Your task to perform on an android device: Search for seafood restaurants on Google Maps Image 0: 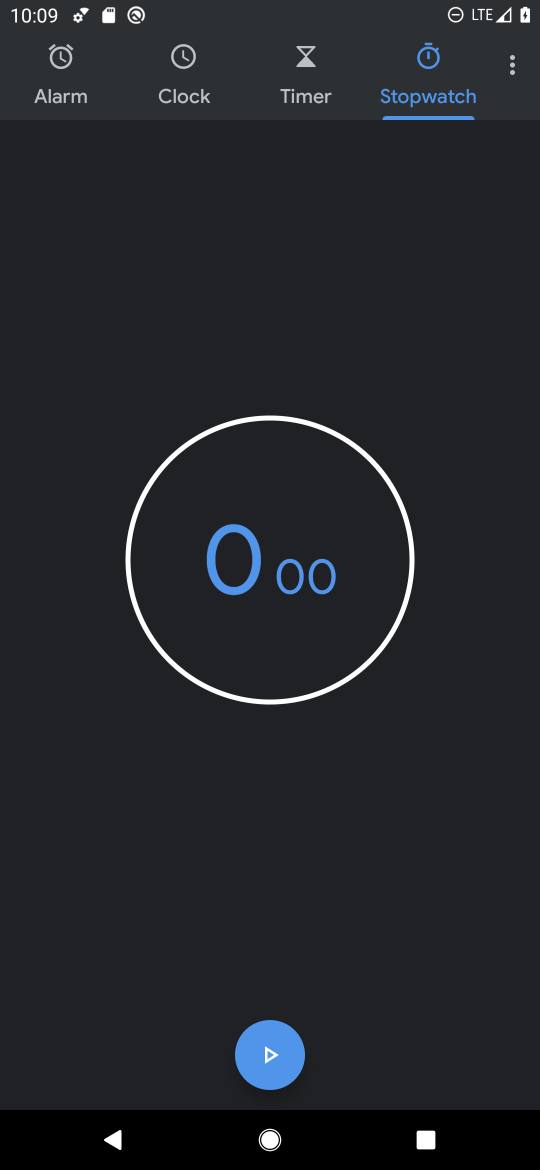
Step 0: press home button
Your task to perform on an android device: Search for seafood restaurants on Google Maps Image 1: 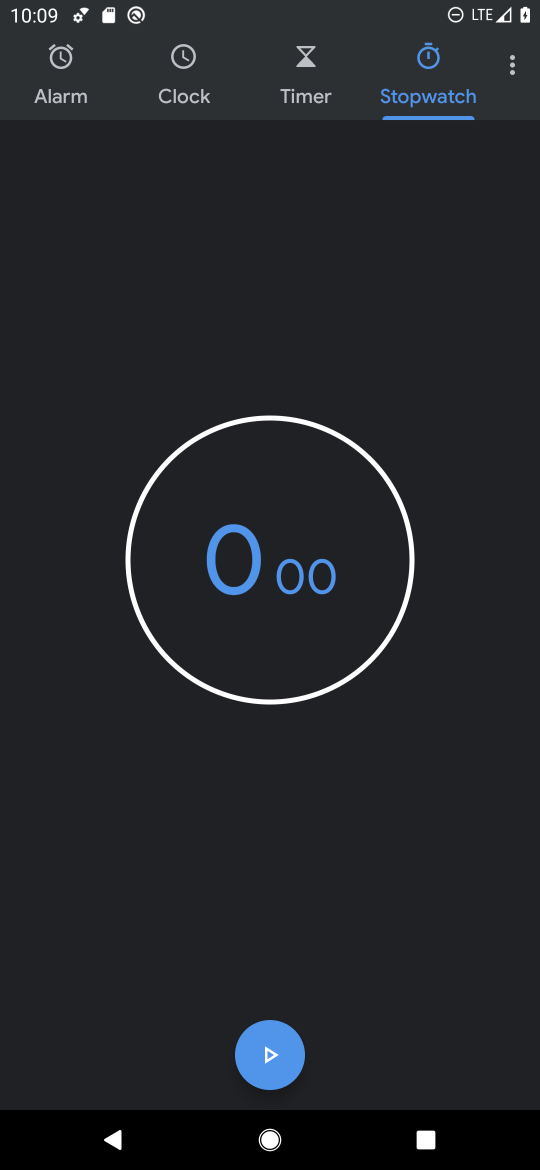
Step 1: press home button
Your task to perform on an android device: Search for seafood restaurants on Google Maps Image 2: 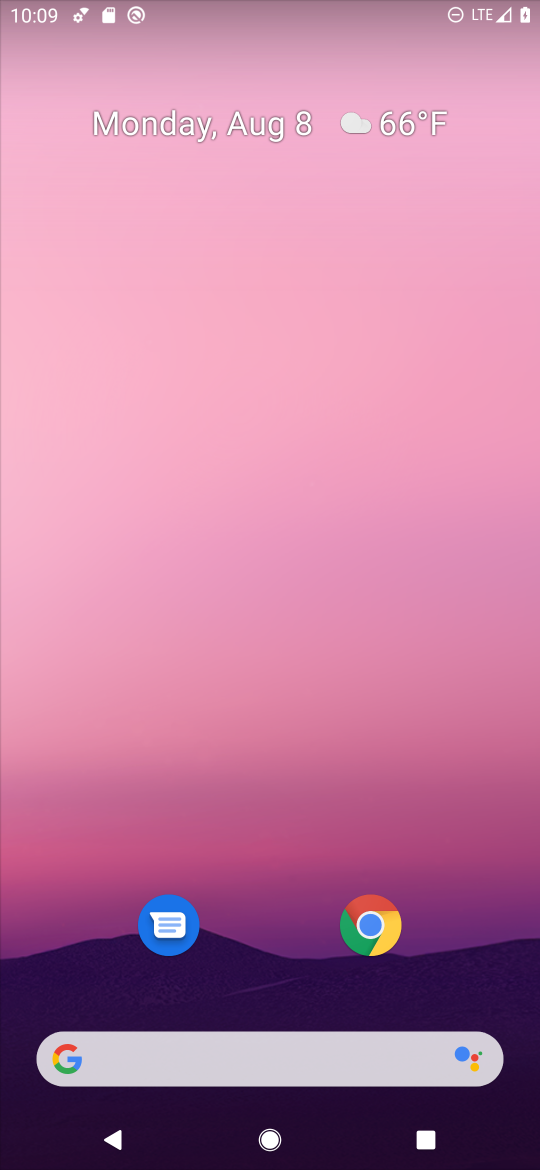
Step 2: drag from (222, 846) to (293, 238)
Your task to perform on an android device: Search for seafood restaurants on Google Maps Image 3: 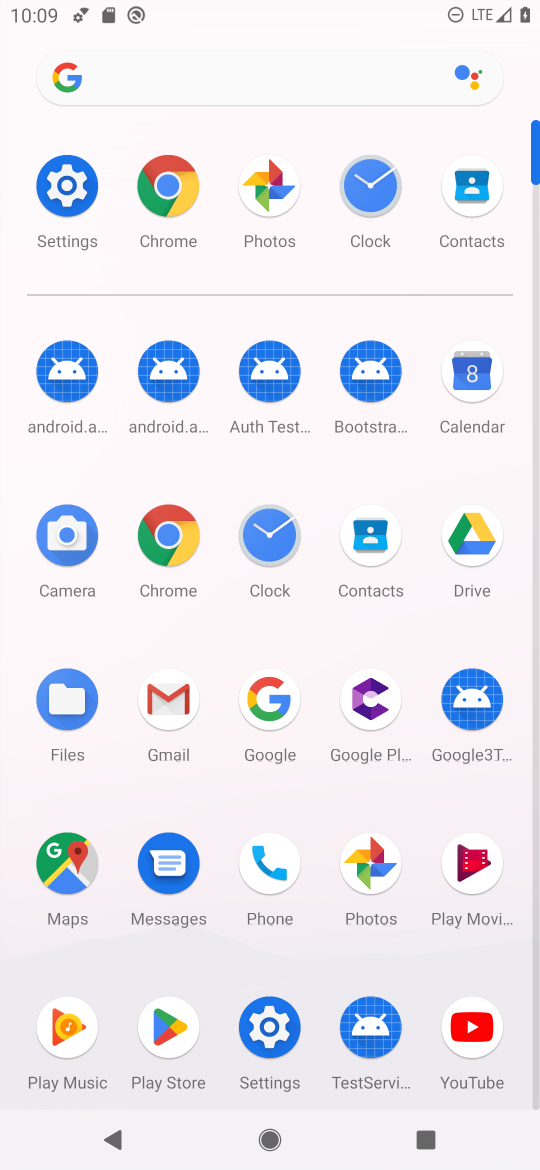
Step 3: click (58, 864)
Your task to perform on an android device: Search for seafood restaurants on Google Maps Image 4: 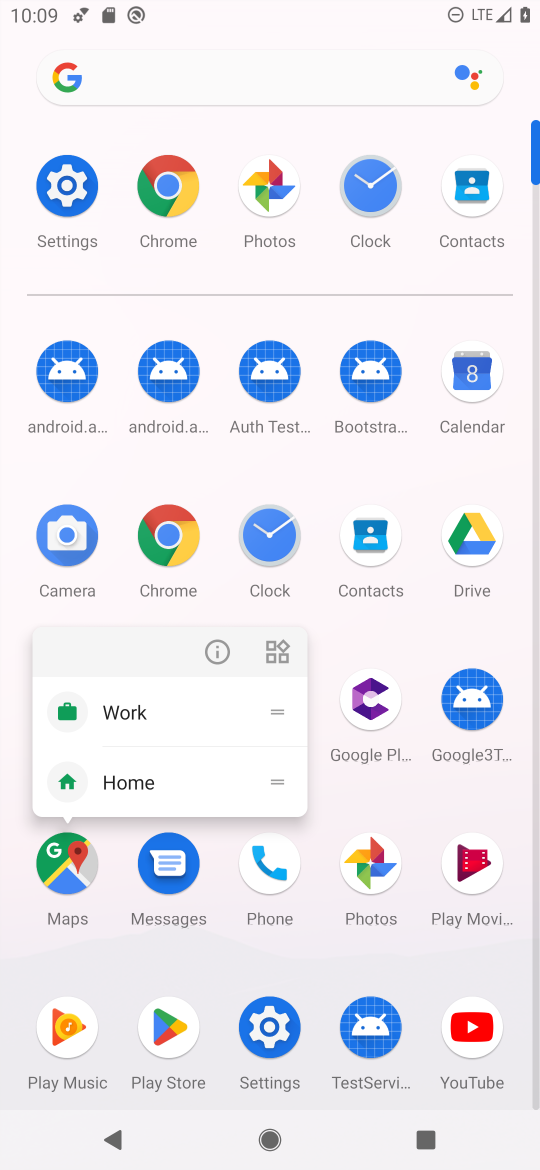
Step 4: click (58, 864)
Your task to perform on an android device: Search for seafood restaurants on Google Maps Image 5: 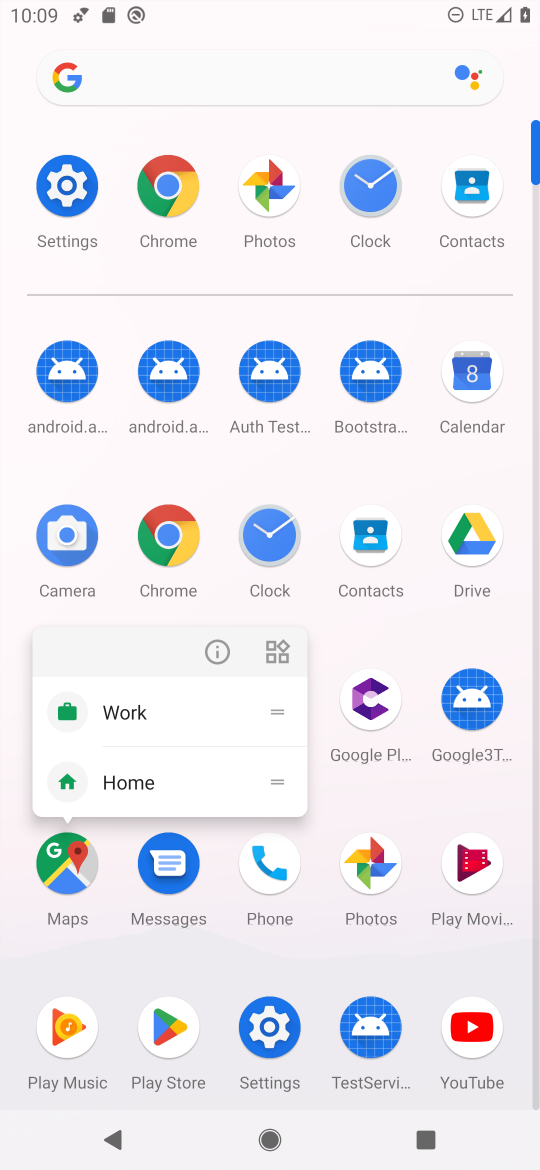
Step 5: click (63, 867)
Your task to perform on an android device: Search for seafood restaurants on Google Maps Image 6: 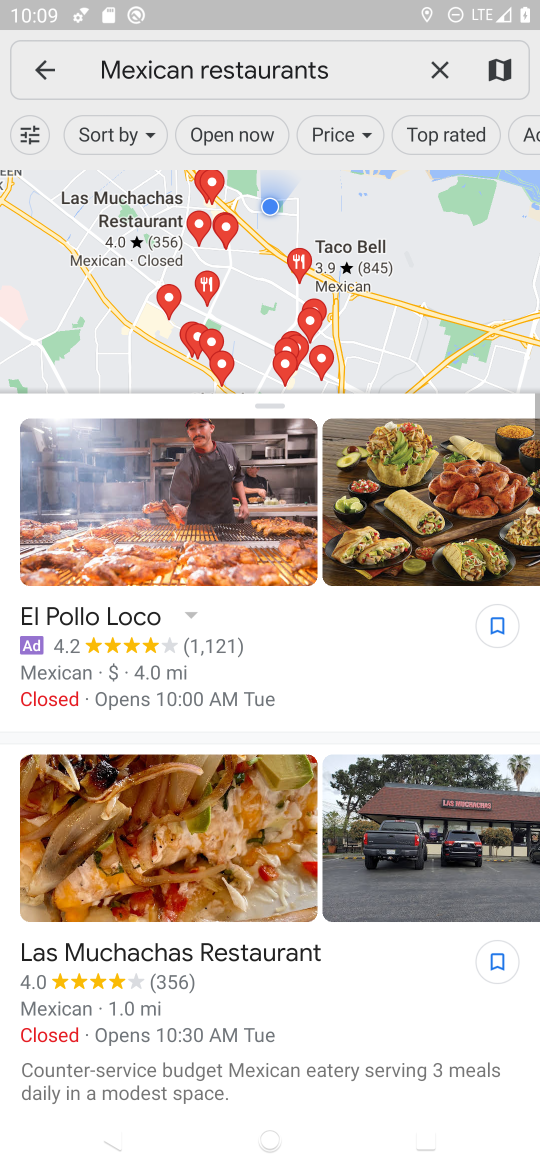
Step 6: click (438, 55)
Your task to perform on an android device: Search for seafood restaurants on Google Maps Image 7: 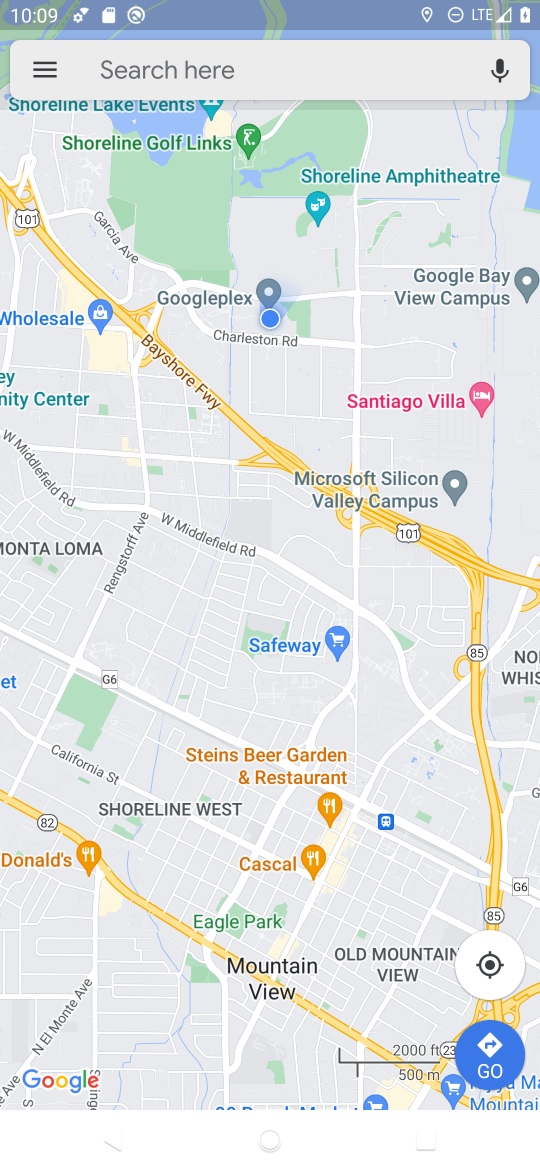
Step 7: click (264, 61)
Your task to perform on an android device: Search for seafood restaurants on Google Maps Image 8: 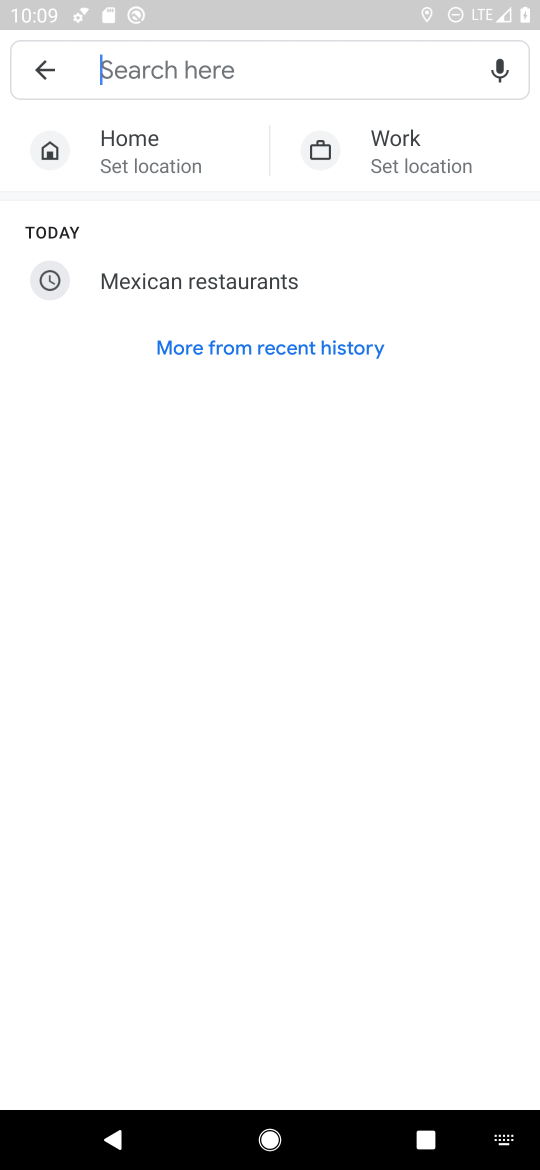
Step 8: type "seafood restaurants"
Your task to perform on an android device: Search for seafood restaurants on Google Maps Image 9: 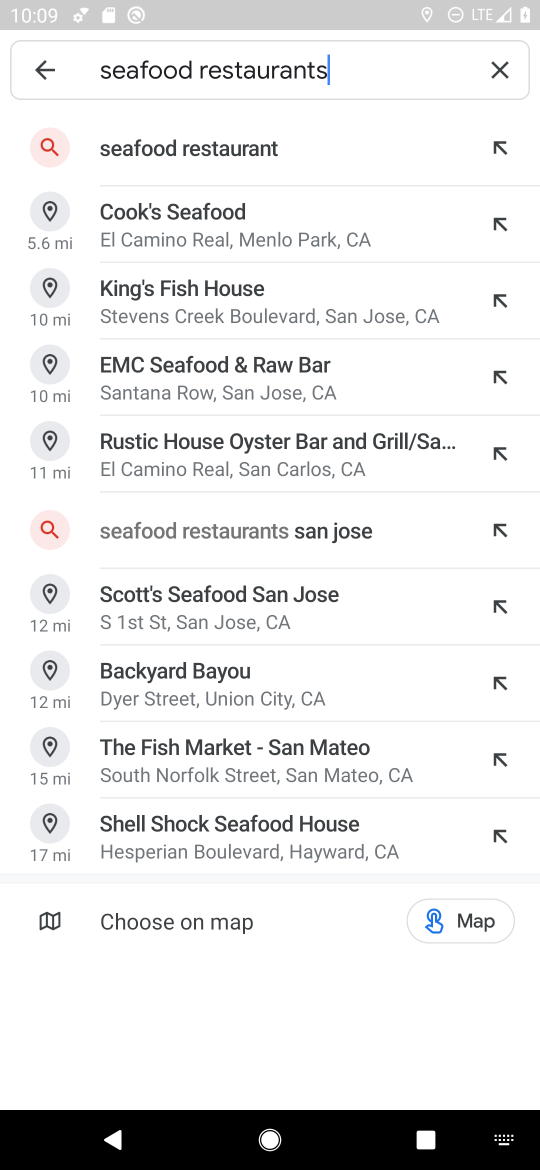
Step 9: press enter
Your task to perform on an android device: Search for seafood restaurants on Google Maps Image 10: 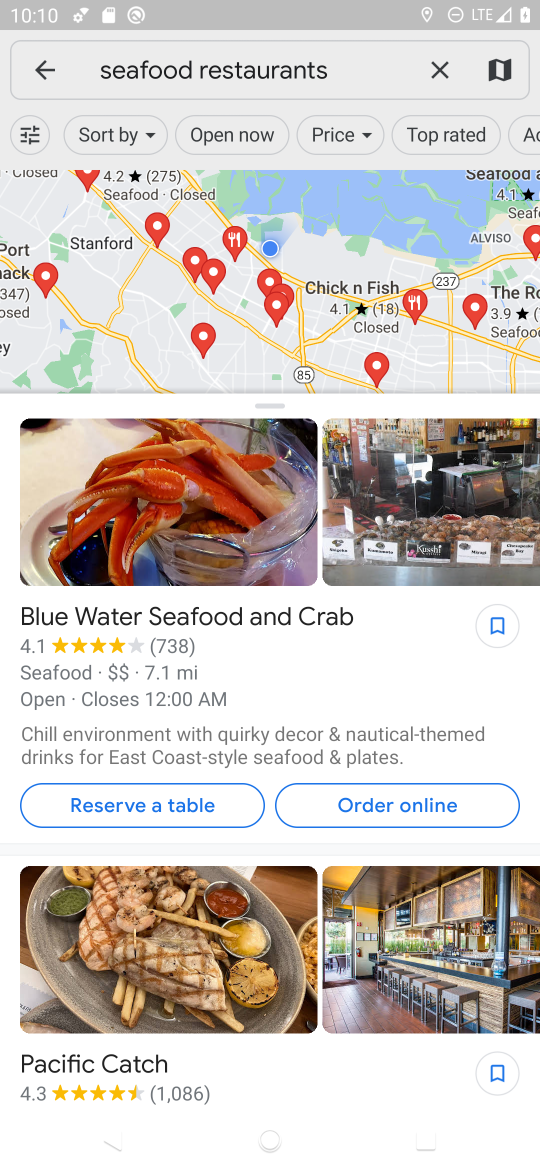
Step 10: task complete